Your task to perform on an android device: Open my contact list Image 0: 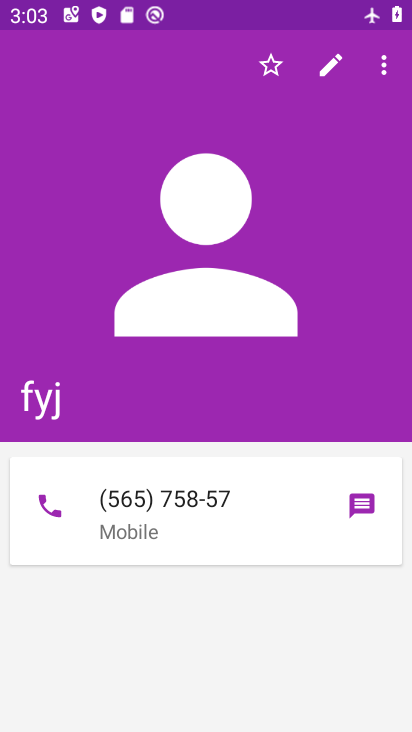
Step 0: press home button
Your task to perform on an android device: Open my contact list Image 1: 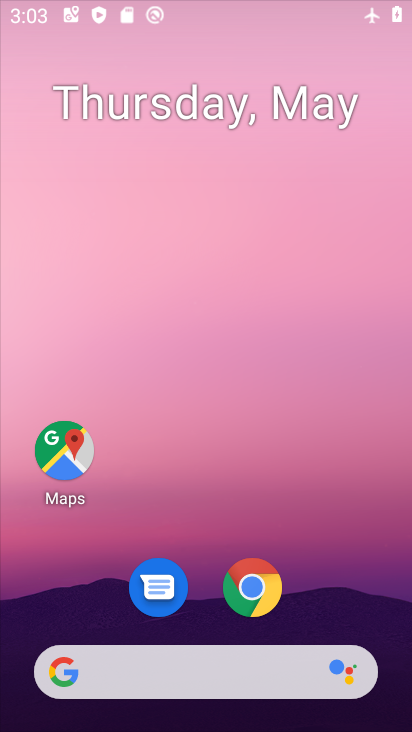
Step 1: drag from (234, 559) to (231, 180)
Your task to perform on an android device: Open my contact list Image 2: 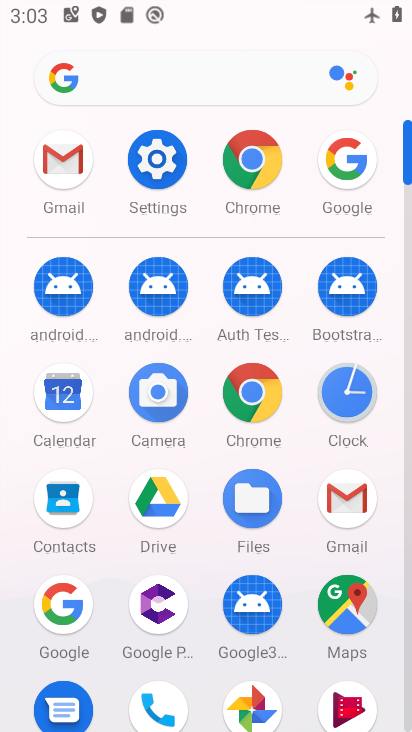
Step 2: click (80, 492)
Your task to perform on an android device: Open my contact list Image 3: 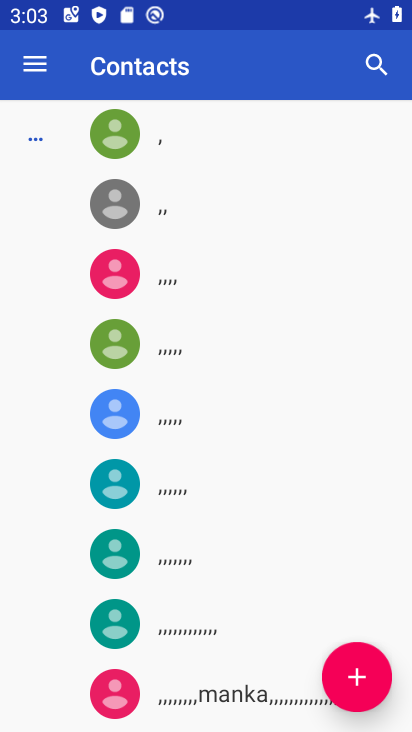
Step 3: task complete